Your task to perform on an android device: turn on showing notifications on the lock screen Image 0: 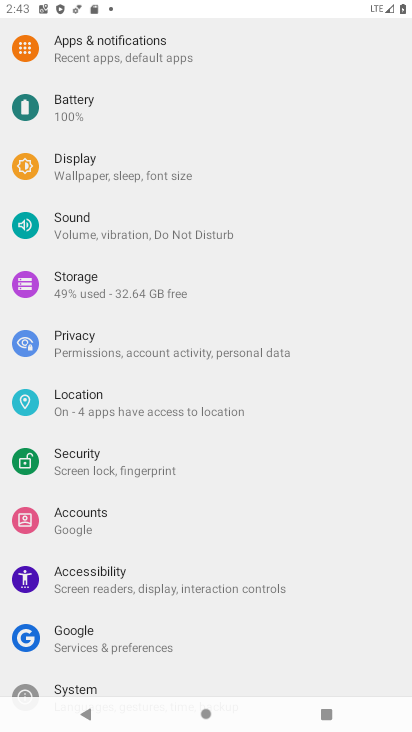
Step 0: press home button
Your task to perform on an android device: turn on showing notifications on the lock screen Image 1: 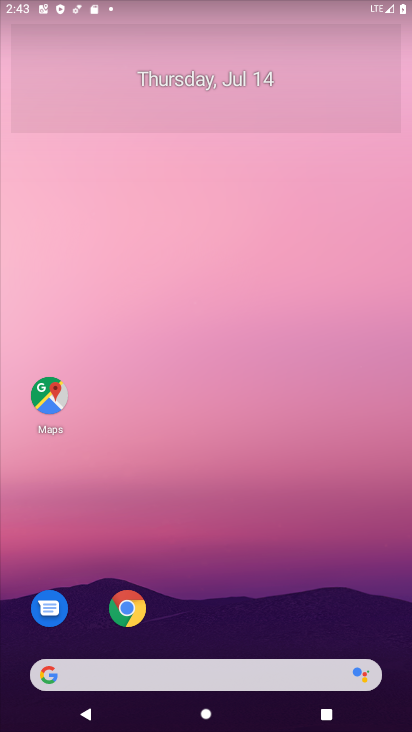
Step 1: drag from (52, 429) to (216, 128)
Your task to perform on an android device: turn on showing notifications on the lock screen Image 2: 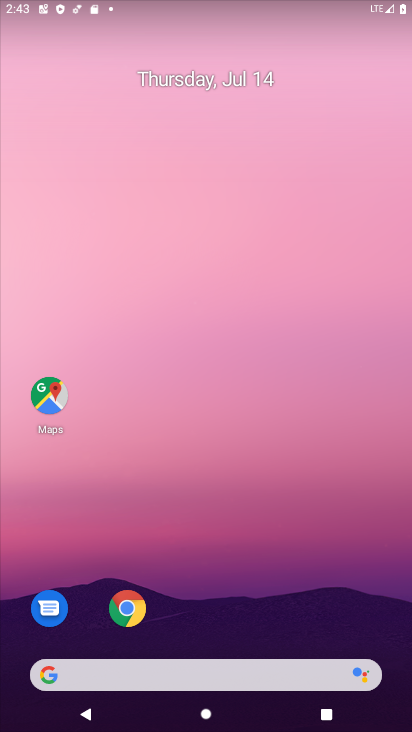
Step 2: drag from (36, 538) to (265, 149)
Your task to perform on an android device: turn on showing notifications on the lock screen Image 3: 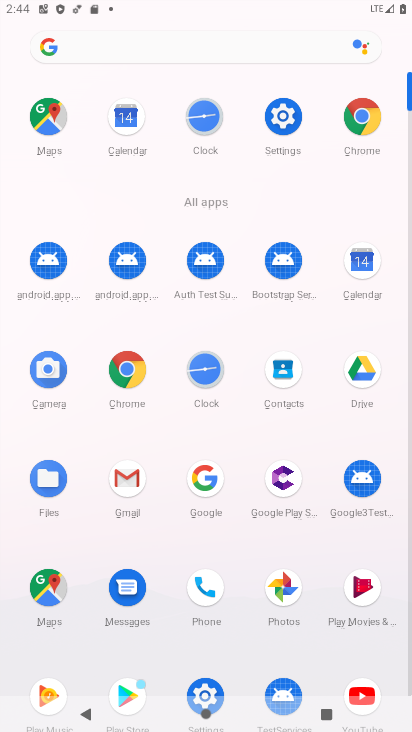
Step 3: click (272, 134)
Your task to perform on an android device: turn on showing notifications on the lock screen Image 4: 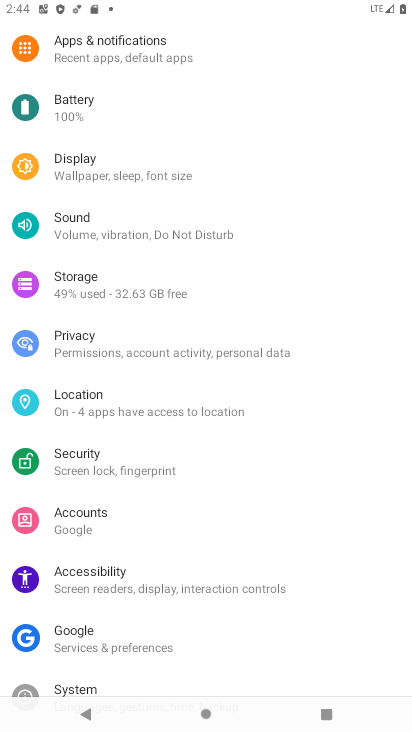
Step 4: click (168, 53)
Your task to perform on an android device: turn on showing notifications on the lock screen Image 5: 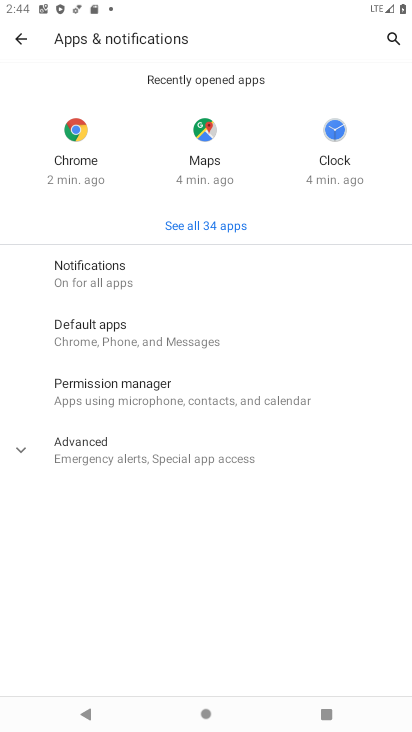
Step 5: click (142, 285)
Your task to perform on an android device: turn on showing notifications on the lock screen Image 6: 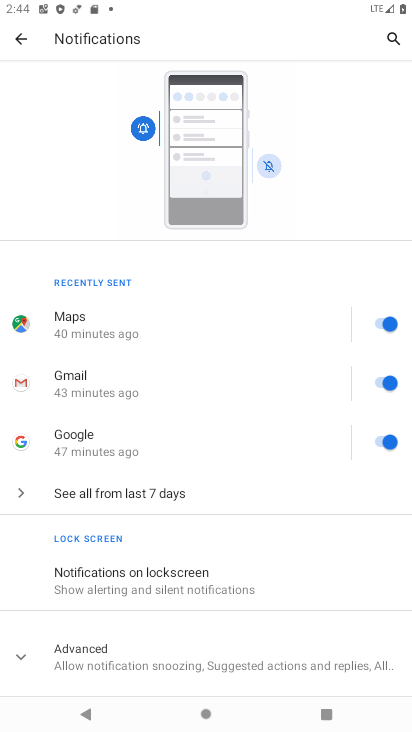
Step 6: click (158, 576)
Your task to perform on an android device: turn on showing notifications on the lock screen Image 7: 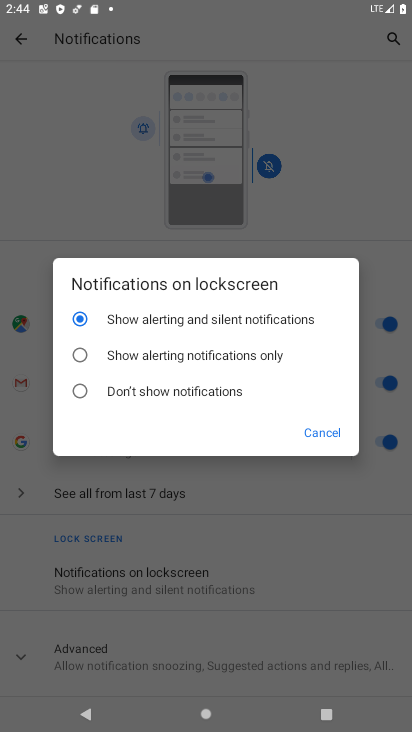
Step 7: task complete